Your task to perform on an android device: choose inbox layout in the gmail app Image 0: 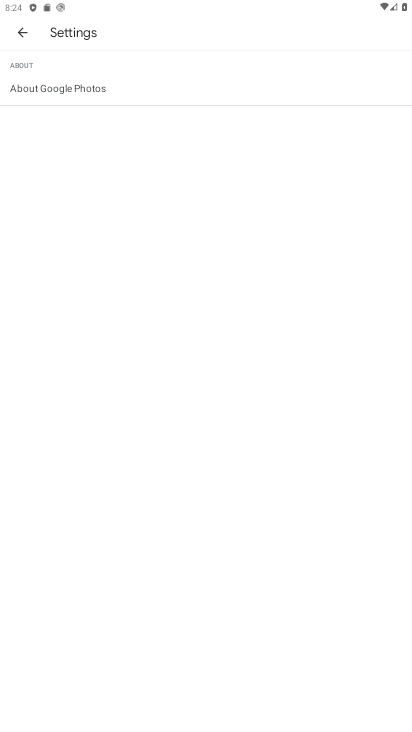
Step 0: press home button
Your task to perform on an android device: choose inbox layout in the gmail app Image 1: 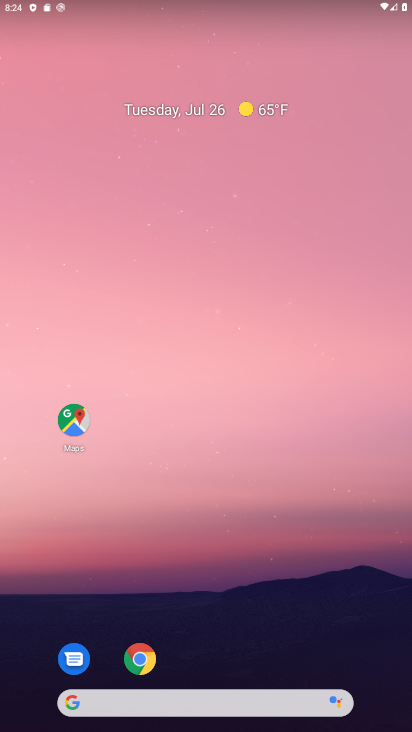
Step 1: drag from (191, 504) to (188, 100)
Your task to perform on an android device: choose inbox layout in the gmail app Image 2: 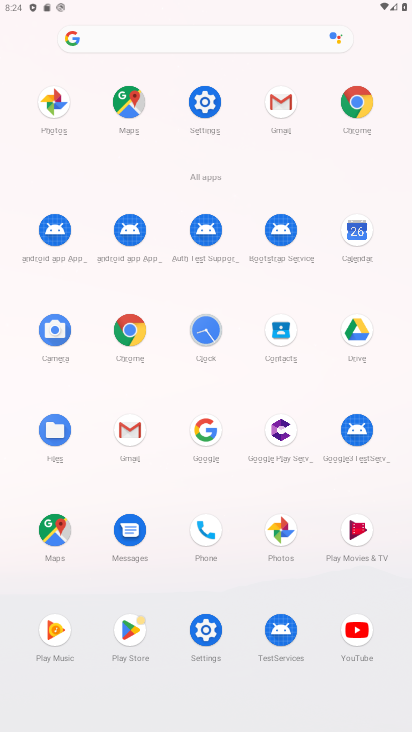
Step 2: click (280, 124)
Your task to perform on an android device: choose inbox layout in the gmail app Image 3: 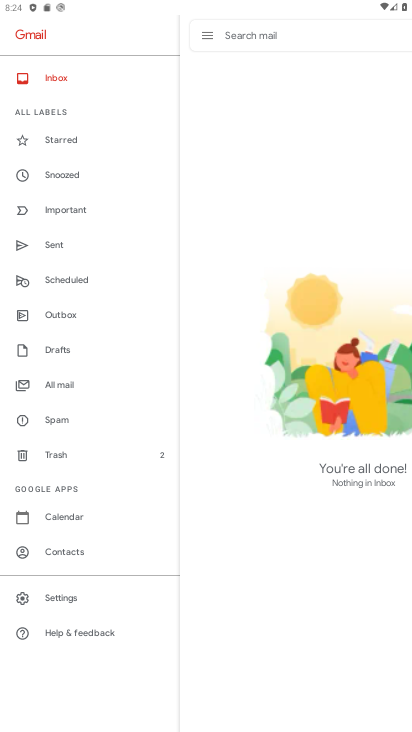
Step 3: click (51, 600)
Your task to perform on an android device: choose inbox layout in the gmail app Image 4: 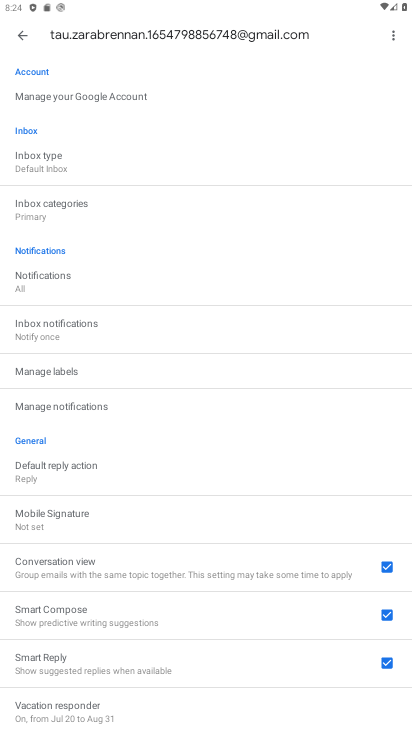
Step 4: click (33, 165)
Your task to perform on an android device: choose inbox layout in the gmail app Image 5: 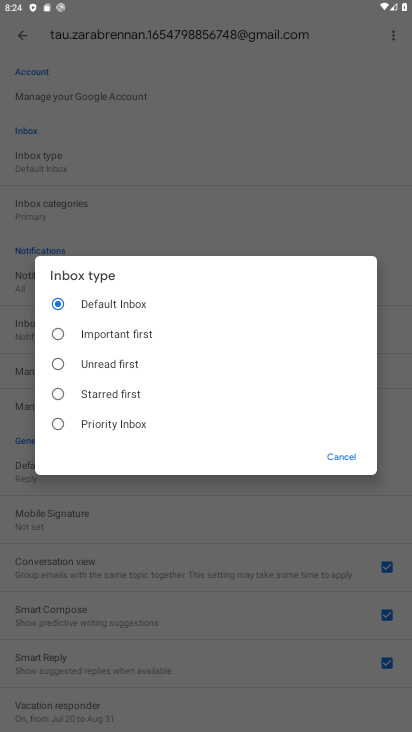
Step 5: click (54, 424)
Your task to perform on an android device: choose inbox layout in the gmail app Image 6: 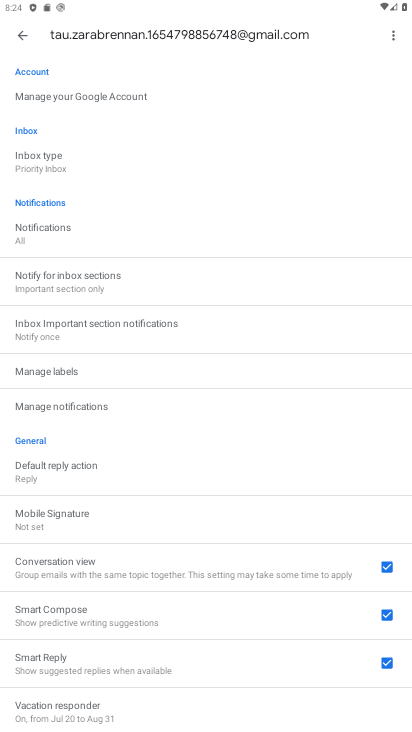
Step 6: task complete